Your task to perform on an android device: set default search engine in the chrome app Image 0: 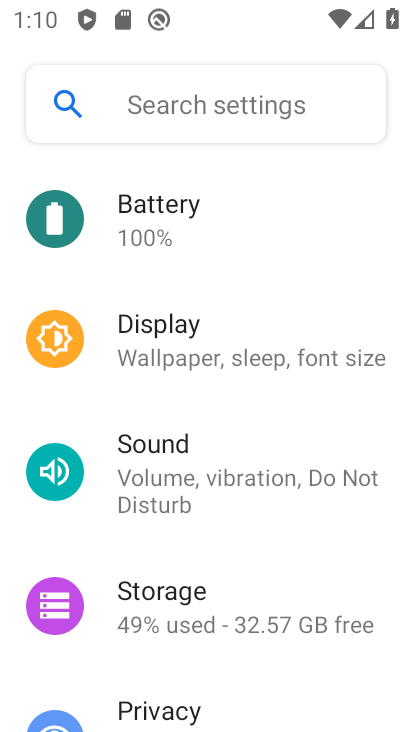
Step 0: press home button
Your task to perform on an android device: set default search engine in the chrome app Image 1: 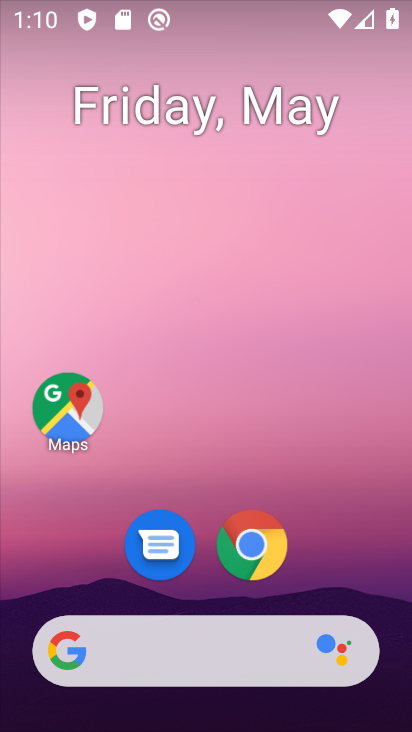
Step 1: click (258, 532)
Your task to perform on an android device: set default search engine in the chrome app Image 2: 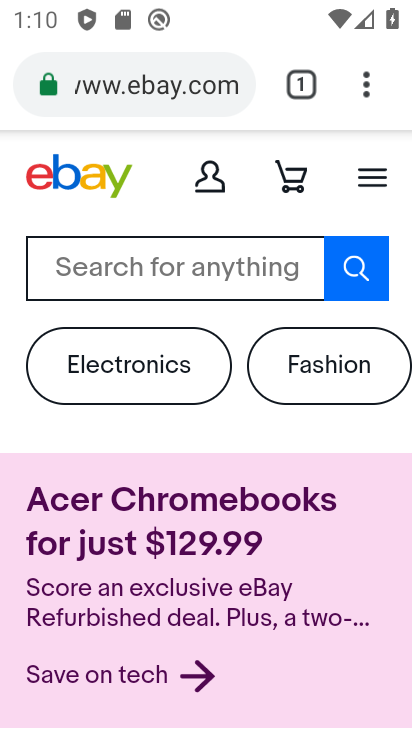
Step 2: click (387, 81)
Your task to perform on an android device: set default search engine in the chrome app Image 3: 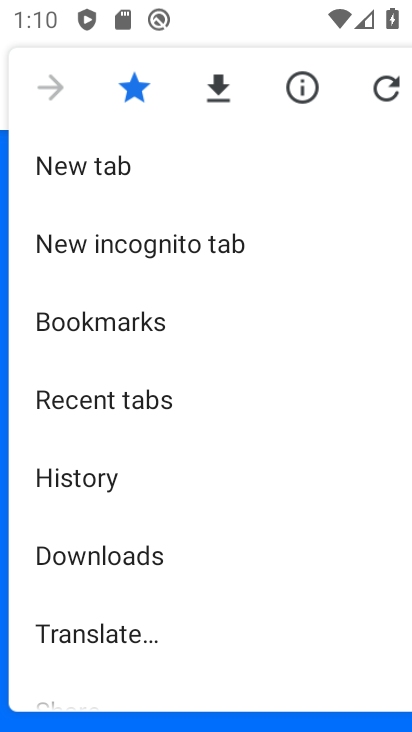
Step 3: drag from (168, 618) to (165, 370)
Your task to perform on an android device: set default search engine in the chrome app Image 4: 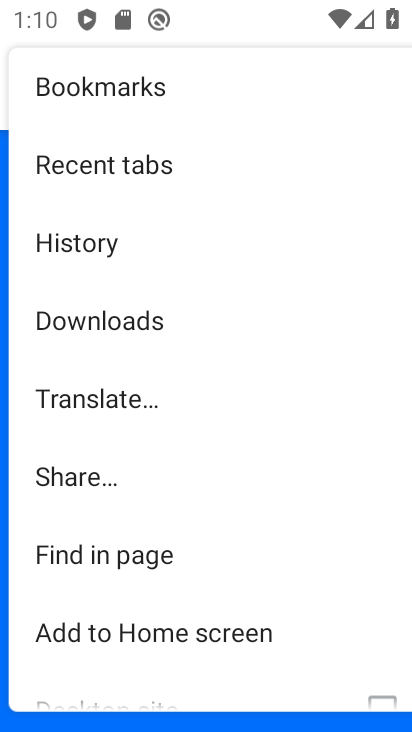
Step 4: drag from (174, 583) to (149, 385)
Your task to perform on an android device: set default search engine in the chrome app Image 5: 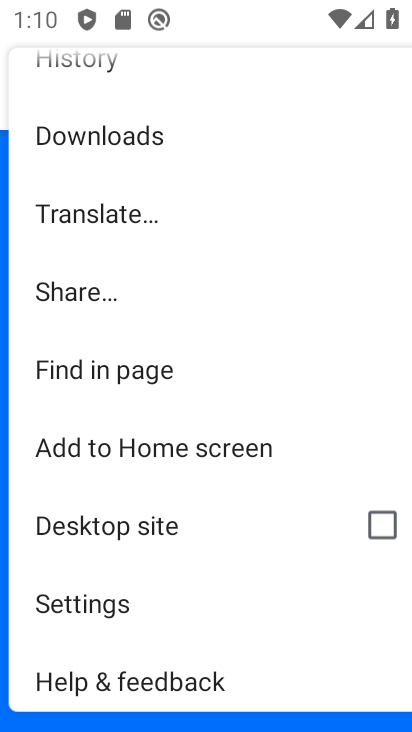
Step 5: click (89, 606)
Your task to perform on an android device: set default search engine in the chrome app Image 6: 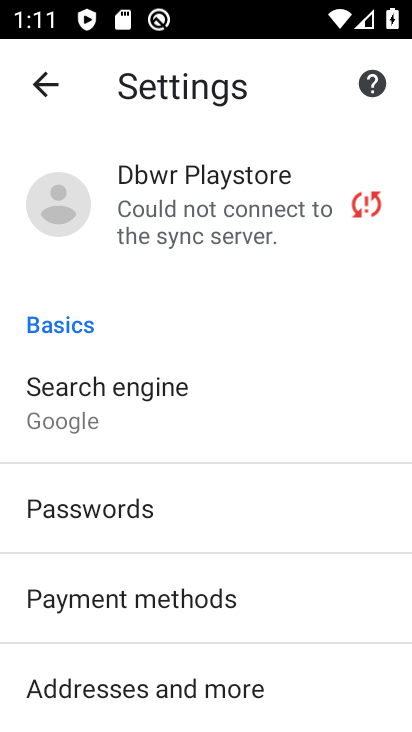
Step 6: click (124, 433)
Your task to perform on an android device: set default search engine in the chrome app Image 7: 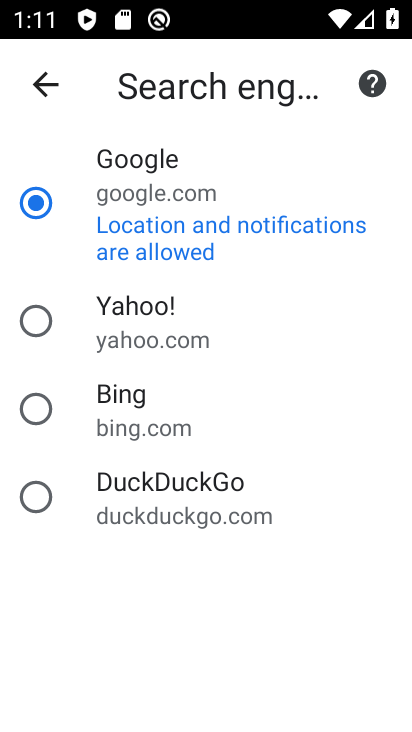
Step 7: click (111, 328)
Your task to perform on an android device: set default search engine in the chrome app Image 8: 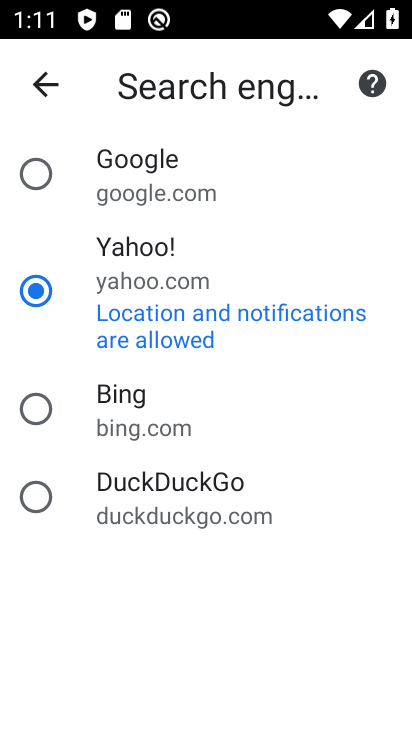
Step 8: task complete